Your task to perform on an android device: read, delete, or share a saved page in the chrome app Image 0: 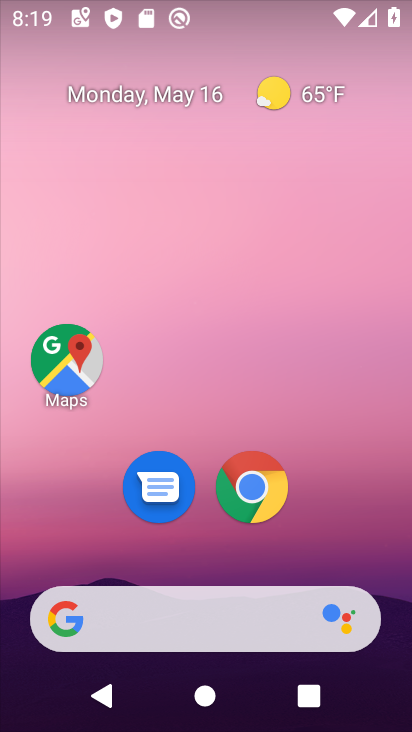
Step 0: drag from (359, 555) to (334, 108)
Your task to perform on an android device: read, delete, or share a saved page in the chrome app Image 1: 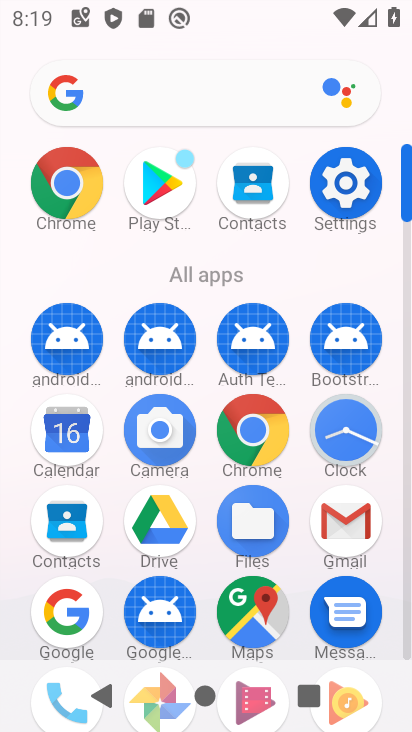
Step 1: click (234, 414)
Your task to perform on an android device: read, delete, or share a saved page in the chrome app Image 2: 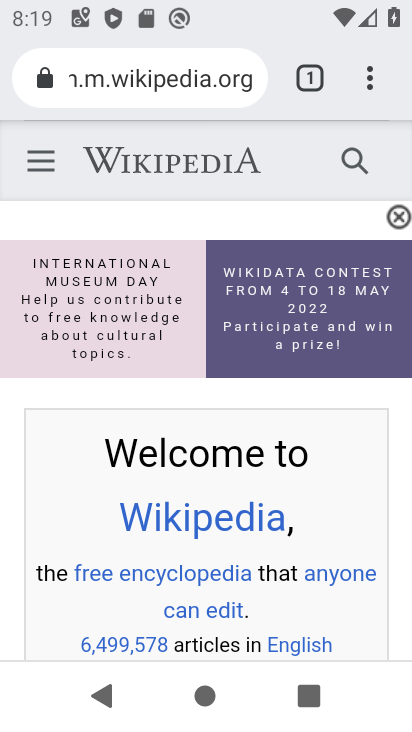
Step 2: click (372, 82)
Your task to perform on an android device: read, delete, or share a saved page in the chrome app Image 3: 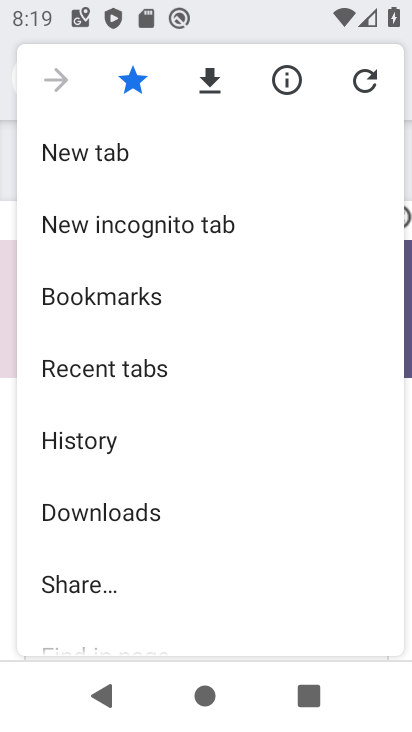
Step 3: click (132, 514)
Your task to perform on an android device: read, delete, or share a saved page in the chrome app Image 4: 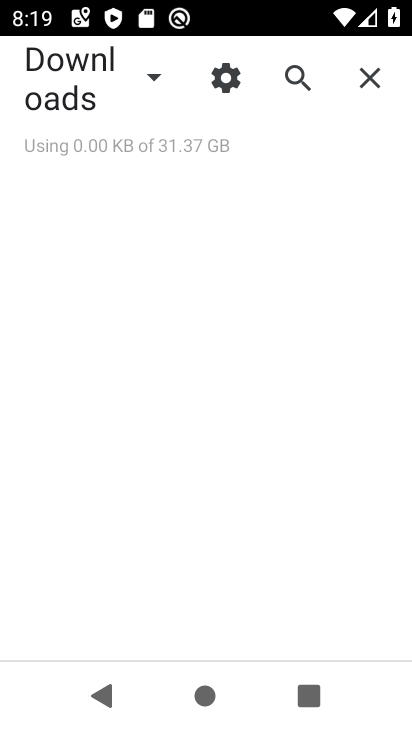
Step 4: click (149, 78)
Your task to perform on an android device: read, delete, or share a saved page in the chrome app Image 5: 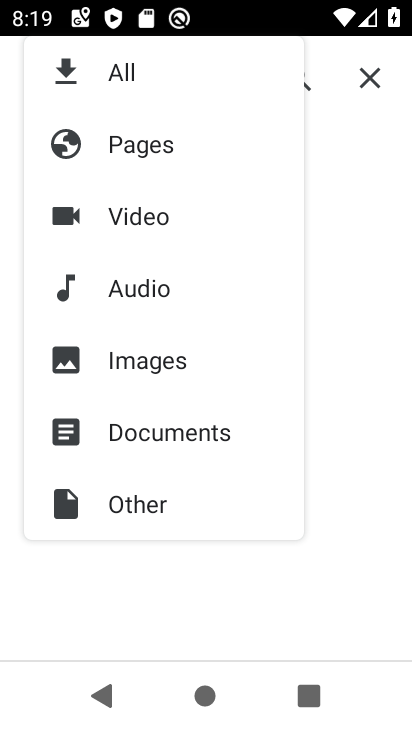
Step 5: click (139, 139)
Your task to perform on an android device: read, delete, or share a saved page in the chrome app Image 6: 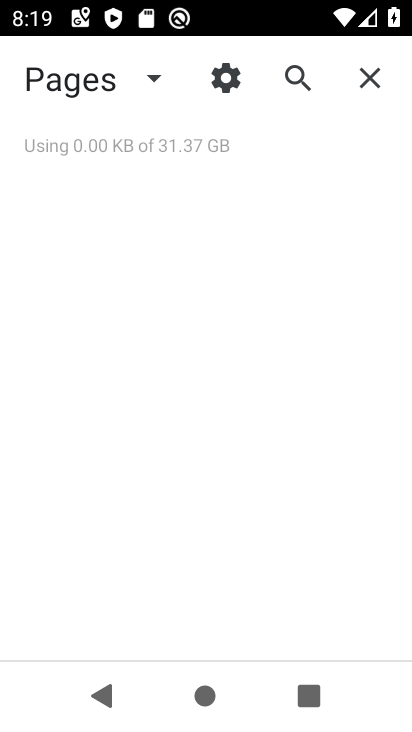
Step 6: task complete